Your task to perform on an android device: toggle javascript in the chrome app Image 0: 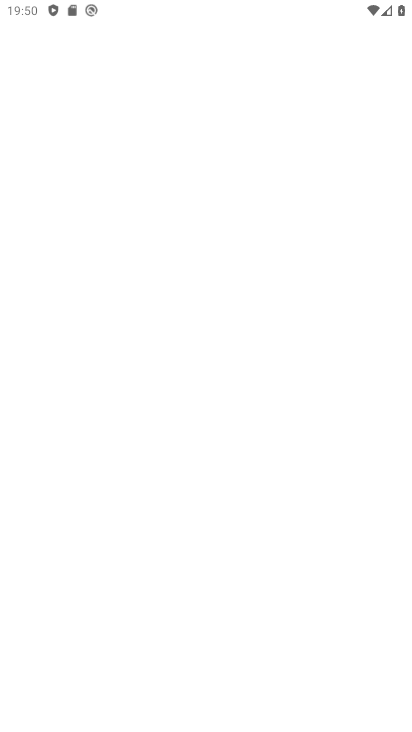
Step 0: press home button
Your task to perform on an android device: toggle javascript in the chrome app Image 1: 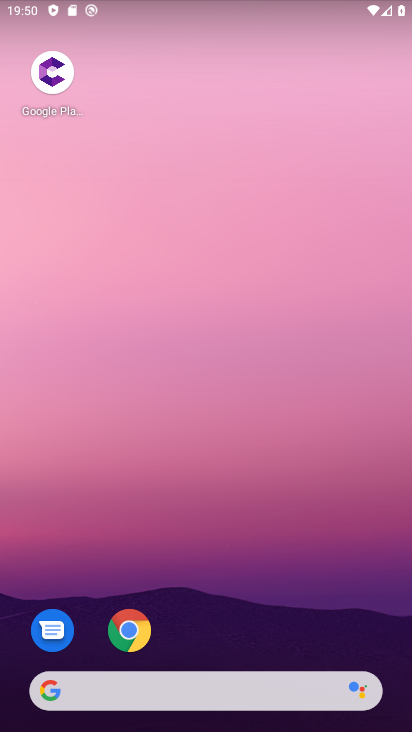
Step 1: drag from (320, 624) to (369, 97)
Your task to perform on an android device: toggle javascript in the chrome app Image 2: 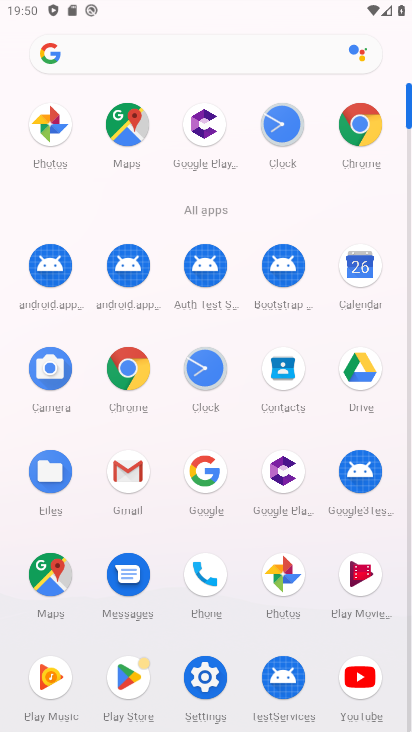
Step 2: click (133, 369)
Your task to perform on an android device: toggle javascript in the chrome app Image 3: 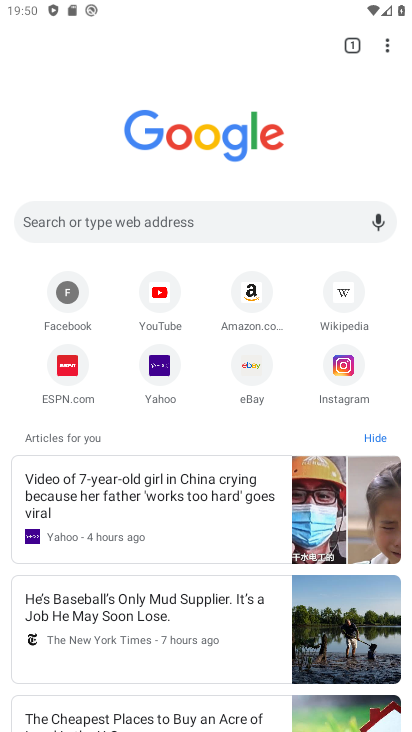
Step 3: click (387, 50)
Your task to perform on an android device: toggle javascript in the chrome app Image 4: 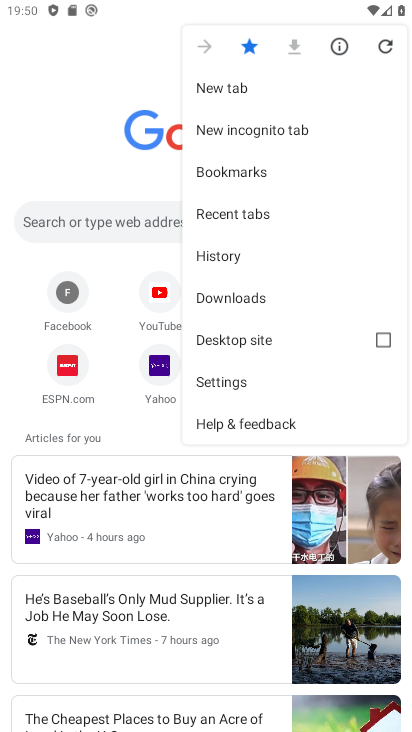
Step 4: click (281, 379)
Your task to perform on an android device: toggle javascript in the chrome app Image 5: 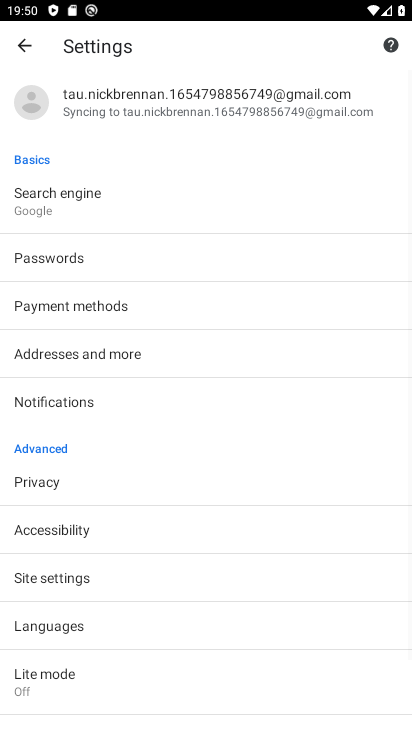
Step 5: drag from (287, 438) to (297, 248)
Your task to perform on an android device: toggle javascript in the chrome app Image 6: 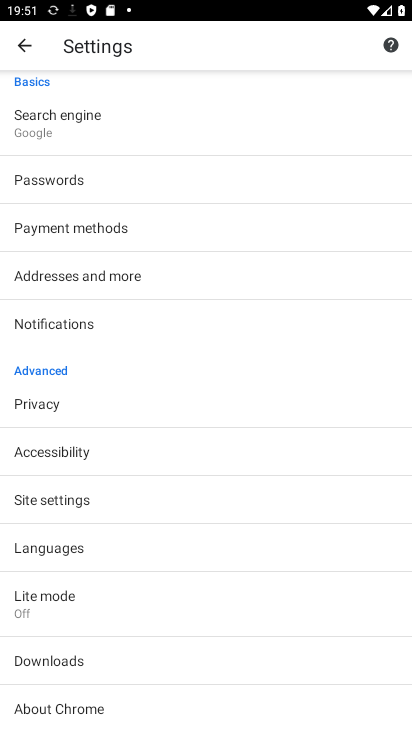
Step 6: click (200, 499)
Your task to perform on an android device: toggle javascript in the chrome app Image 7: 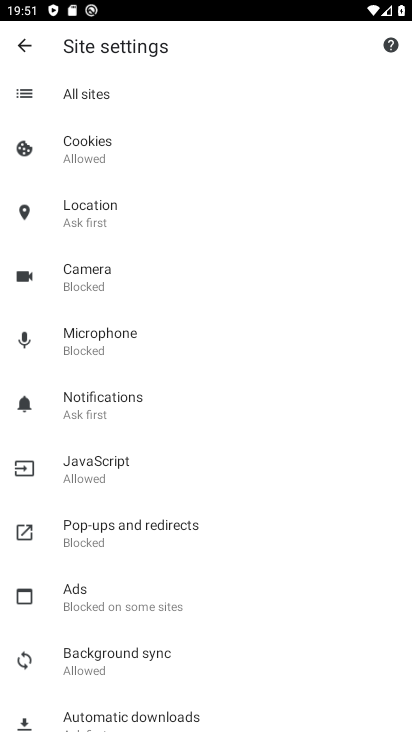
Step 7: click (107, 471)
Your task to perform on an android device: toggle javascript in the chrome app Image 8: 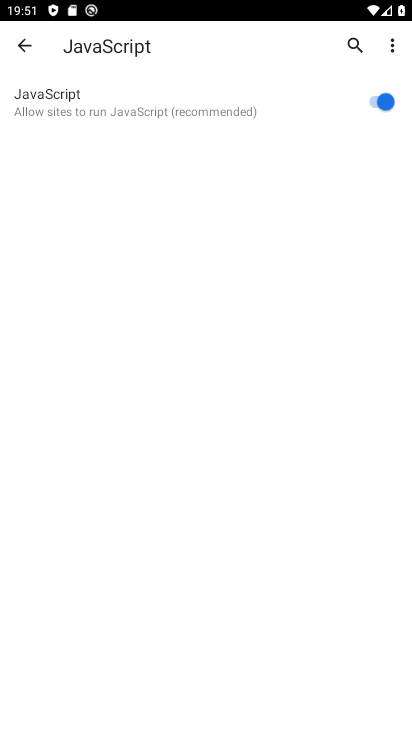
Step 8: click (375, 101)
Your task to perform on an android device: toggle javascript in the chrome app Image 9: 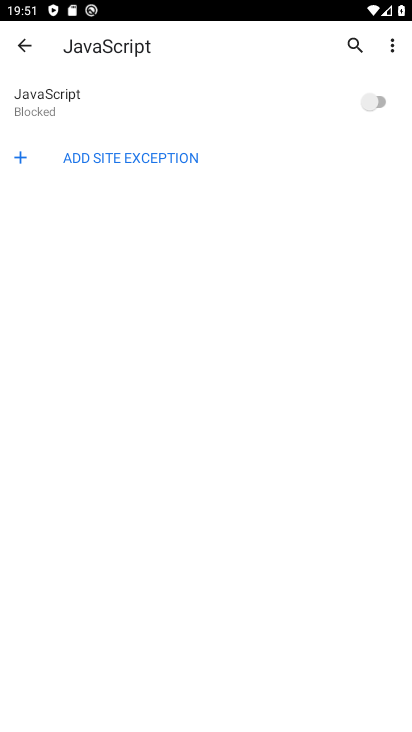
Step 9: task complete